Your task to perform on an android device: turn pop-ups on in chrome Image 0: 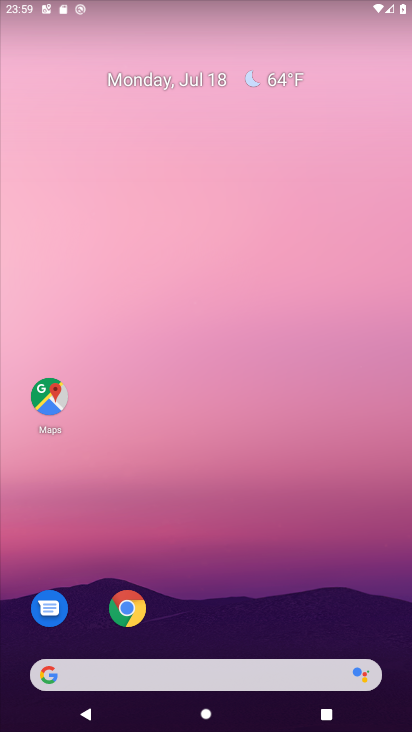
Step 0: drag from (238, 625) to (299, 118)
Your task to perform on an android device: turn pop-ups on in chrome Image 1: 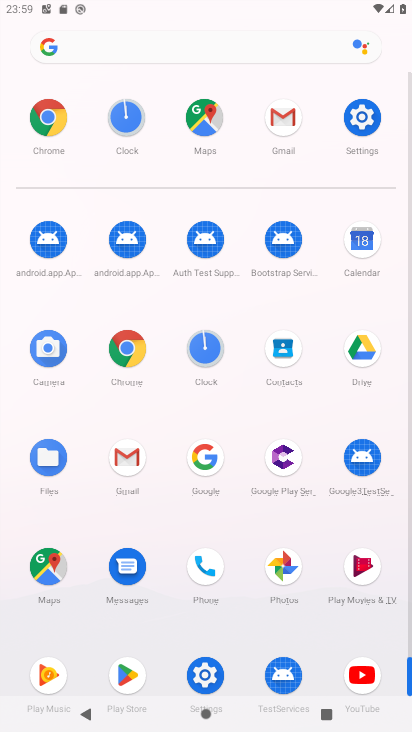
Step 1: click (134, 364)
Your task to perform on an android device: turn pop-ups on in chrome Image 2: 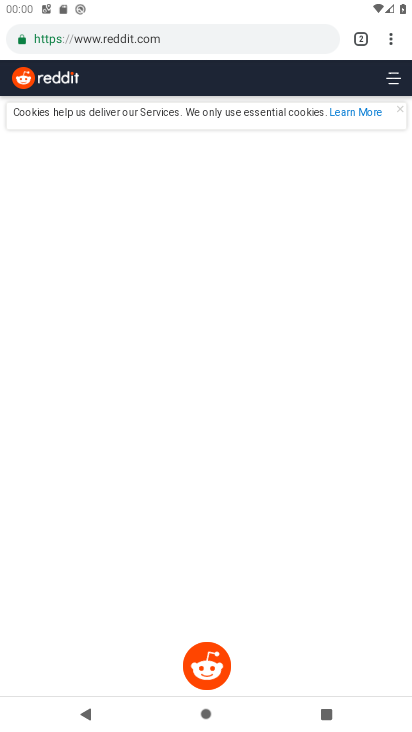
Step 2: click (386, 51)
Your task to perform on an android device: turn pop-ups on in chrome Image 3: 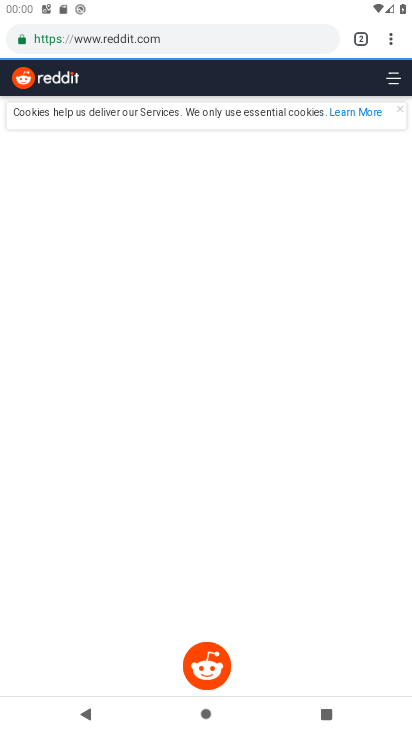
Step 3: click (394, 44)
Your task to perform on an android device: turn pop-ups on in chrome Image 4: 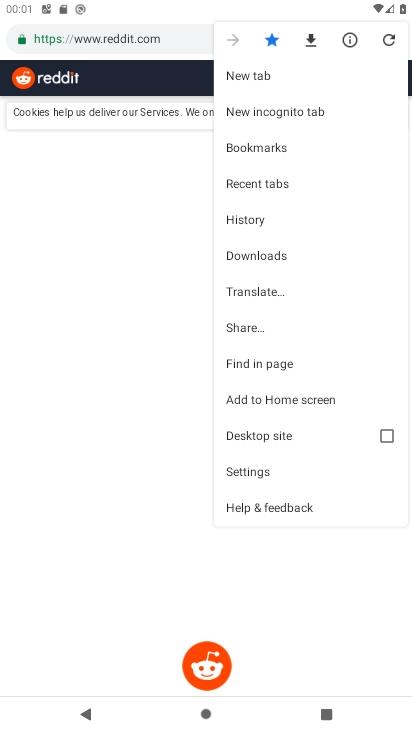
Step 4: click (273, 477)
Your task to perform on an android device: turn pop-ups on in chrome Image 5: 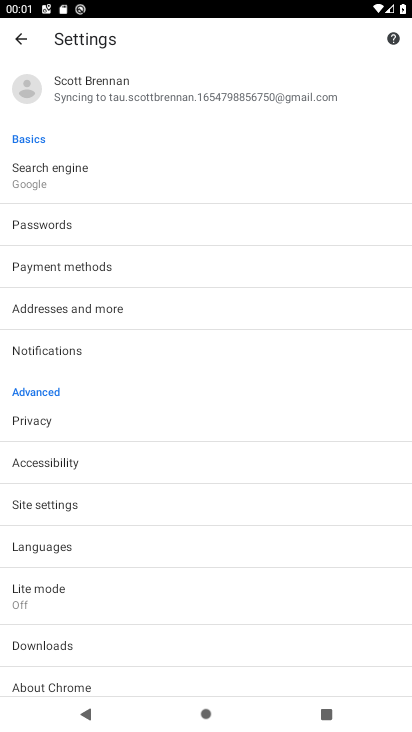
Step 5: click (98, 514)
Your task to perform on an android device: turn pop-ups on in chrome Image 6: 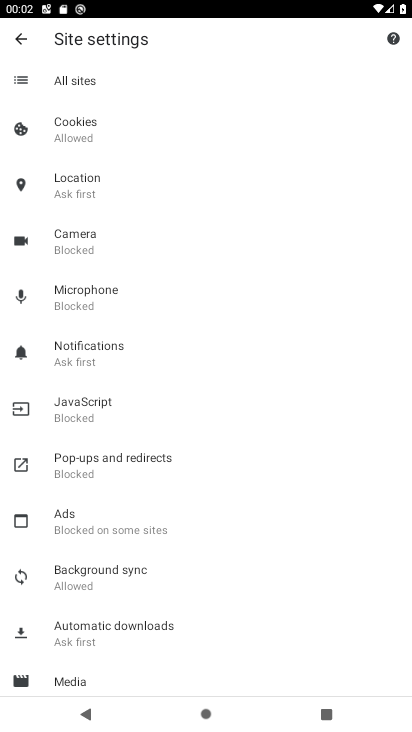
Step 6: click (193, 471)
Your task to perform on an android device: turn pop-ups on in chrome Image 7: 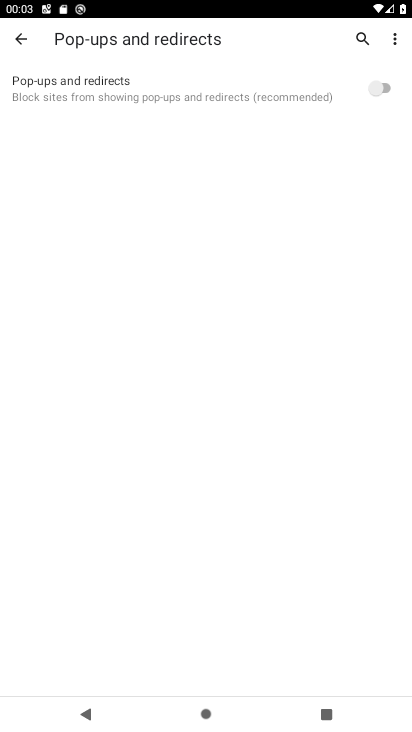
Step 7: click (116, 440)
Your task to perform on an android device: turn pop-ups on in chrome Image 8: 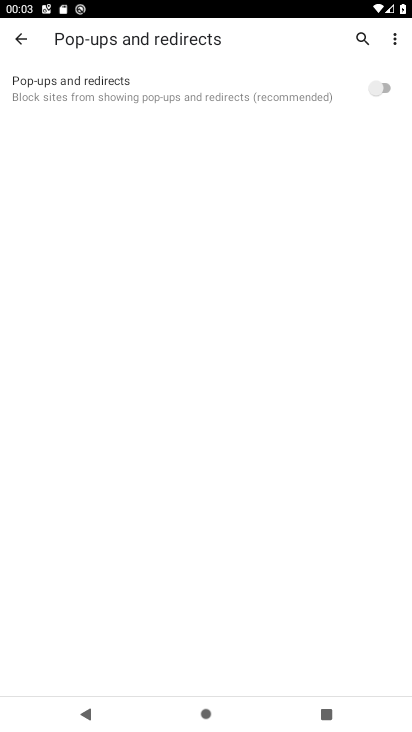
Step 8: click (365, 91)
Your task to perform on an android device: turn pop-ups on in chrome Image 9: 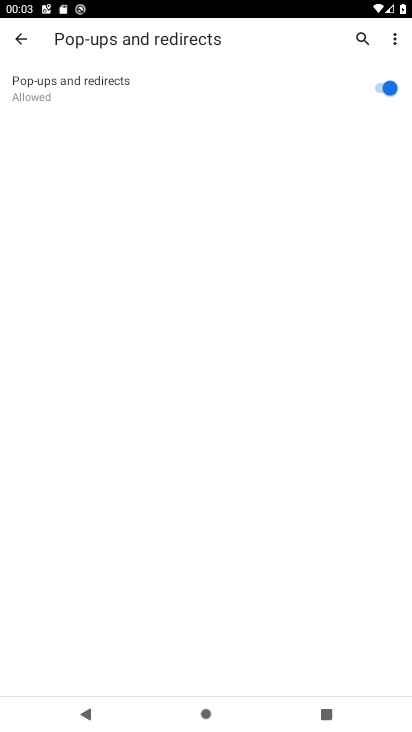
Step 9: task complete